Your task to perform on an android device: What's the weather? Image 0: 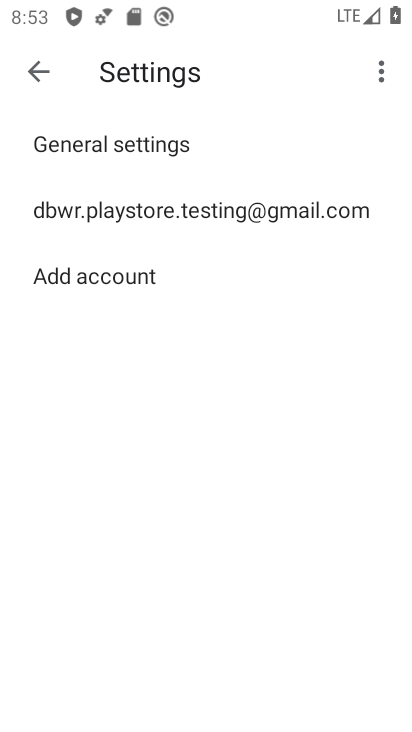
Step 0: press home button
Your task to perform on an android device: What's the weather? Image 1: 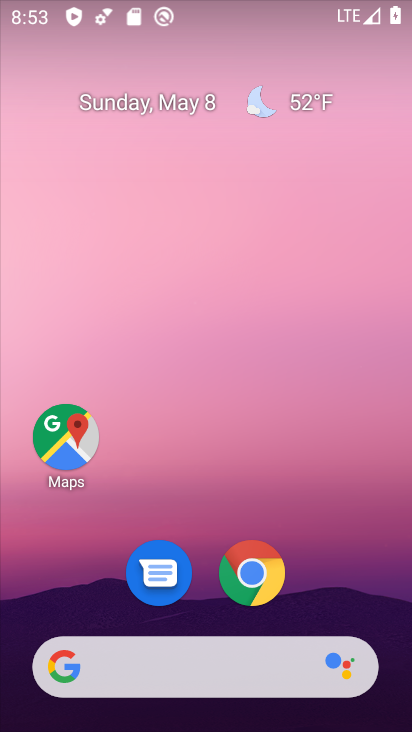
Step 1: click (257, 105)
Your task to perform on an android device: What's the weather? Image 2: 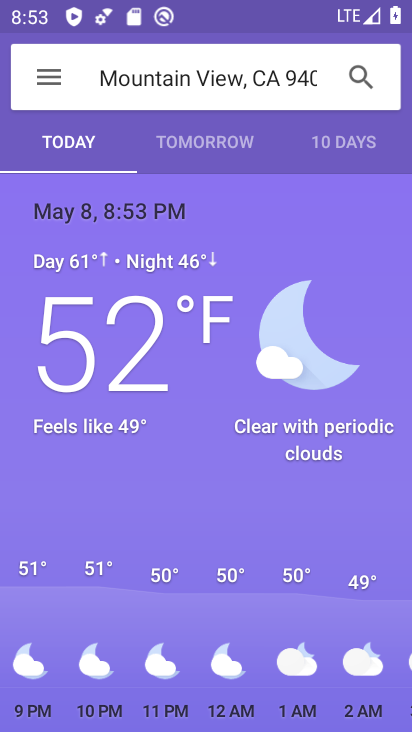
Step 2: task complete